Your task to perform on an android device: turn on the 24-hour format for clock Image 0: 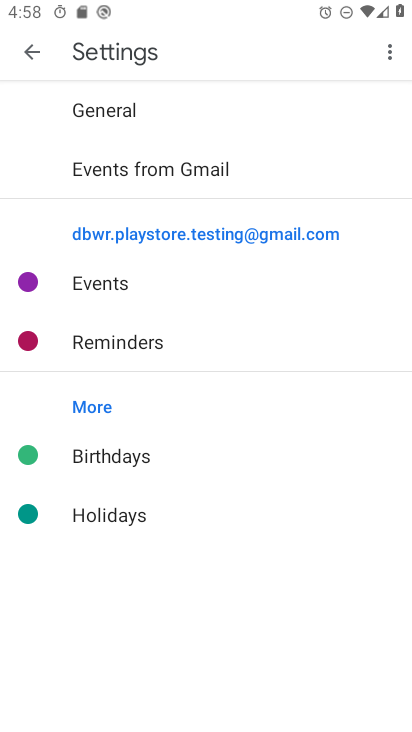
Step 0: press home button
Your task to perform on an android device: turn on the 24-hour format for clock Image 1: 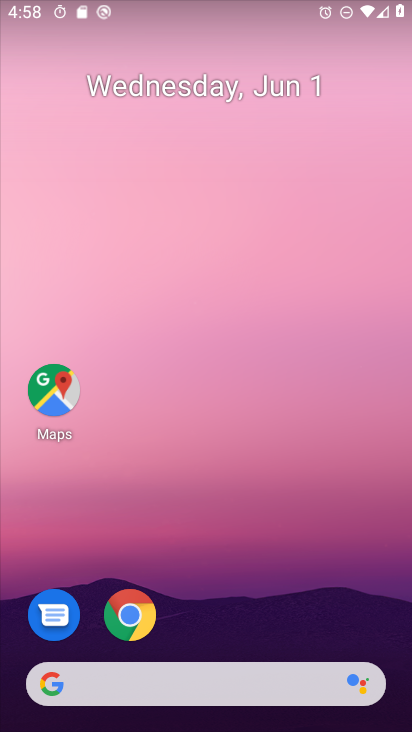
Step 1: drag from (219, 610) to (232, 130)
Your task to perform on an android device: turn on the 24-hour format for clock Image 2: 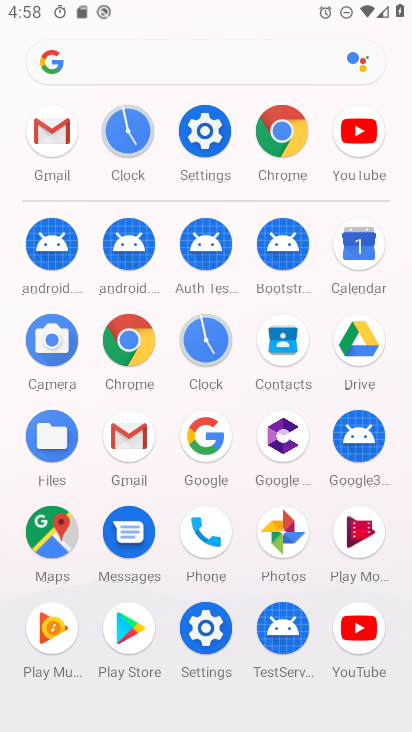
Step 2: click (214, 360)
Your task to perform on an android device: turn on the 24-hour format for clock Image 3: 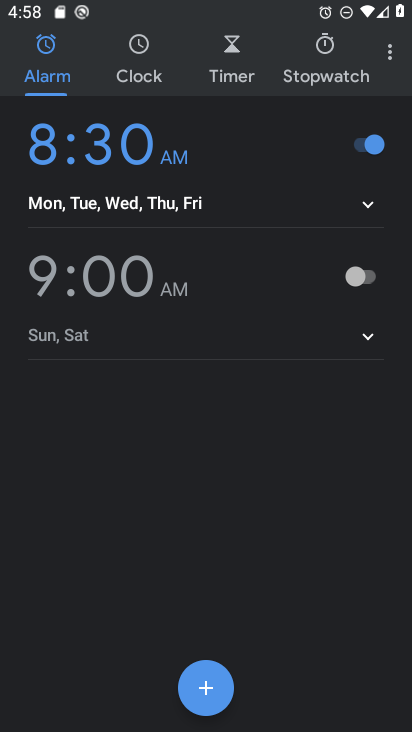
Step 3: click (379, 54)
Your task to perform on an android device: turn on the 24-hour format for clock Image 4: 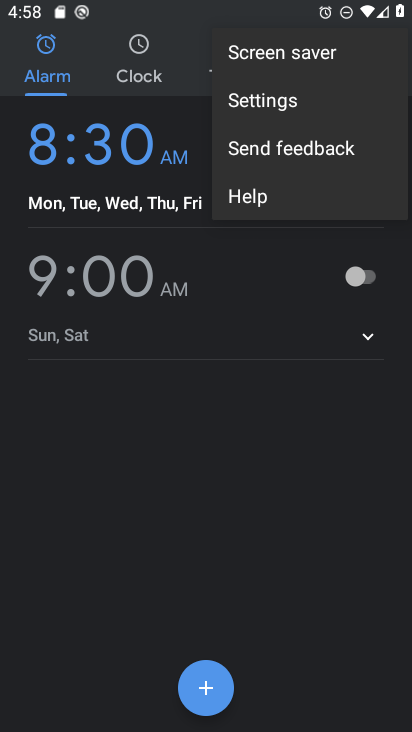
Step 4: click (268, 105)
Your task to perform on an android device: turn on the 24-hour format for clock Image 5: 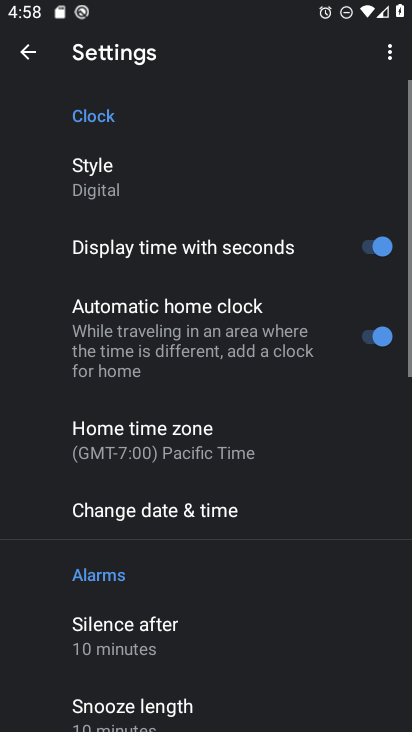
Step 5: click (242, 512)
Your task to perform on an android device: turn on the 24-hour format for clock Image 6: 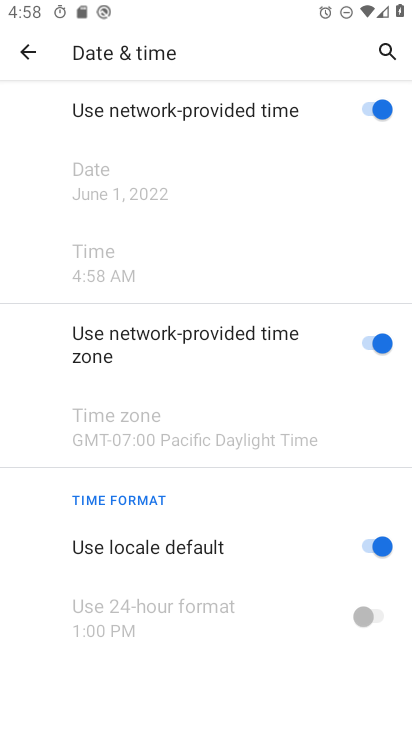
Step 6: click (372, 540)
Your task to perform on an android device: turn on the 24-hour format for clock Image 7: 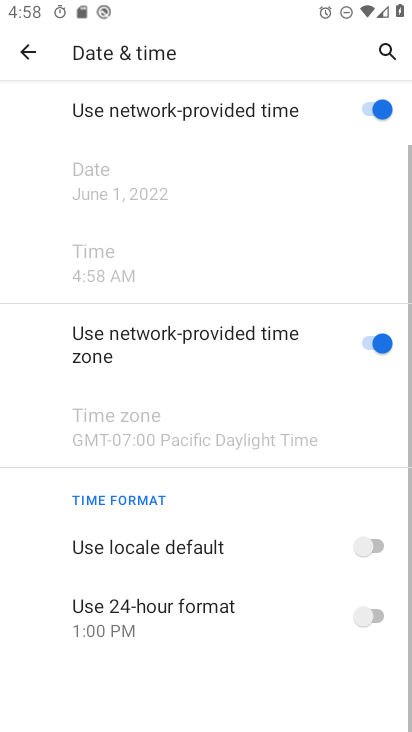
Step 7: click (385, 620)
Your task to perform on an android device: turn on the 24-hour format for clock Image 8: 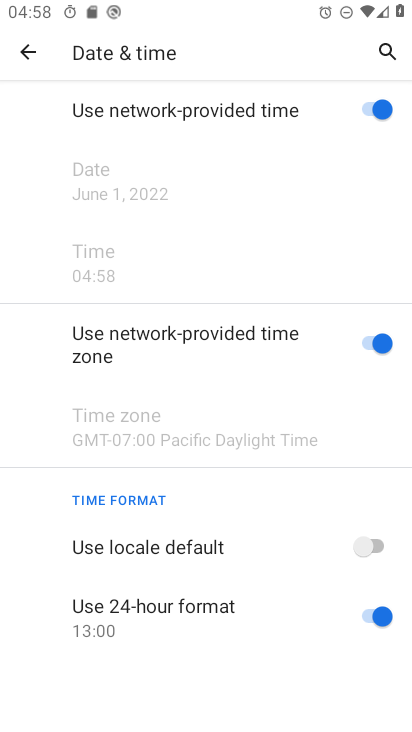
Step 8: task complete